Your task to perform on an android device: create a new album in the google photos Image 0: 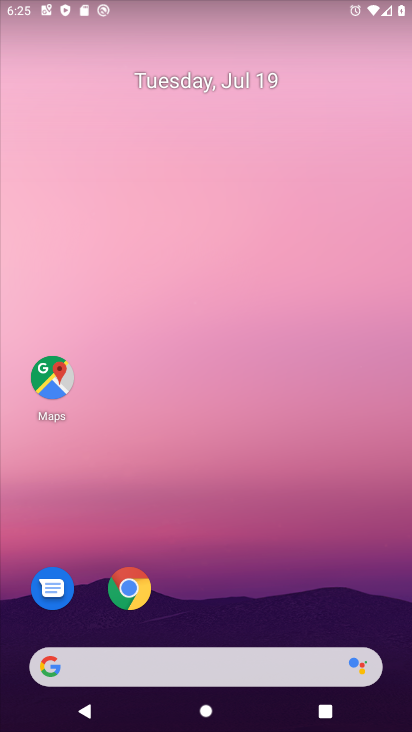
Step 0: drag from (195, 628) to (241, 67)
Your task to perform on an android device: create a new album in the google photos Image 1: 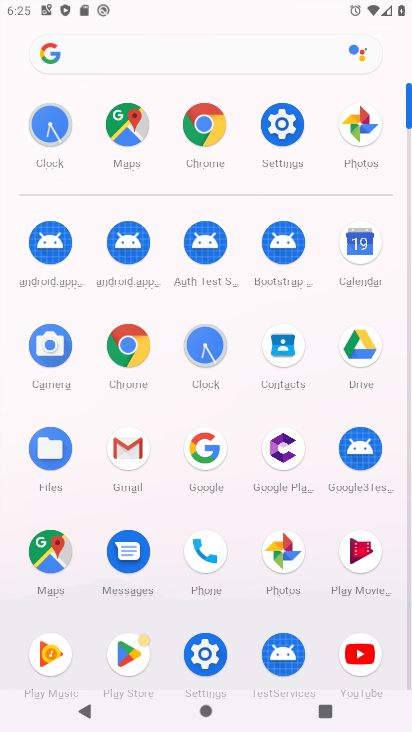
Step 1: click (361, 130)
Your task to perform on an android device: create a new album in the google photos Image 2: 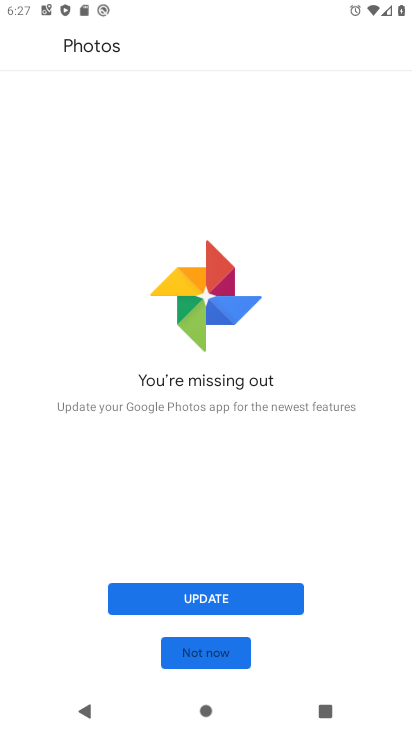
Step 2: click (226, 659)
Your task to perform on an android device: create a new album in the google photos Image 3: 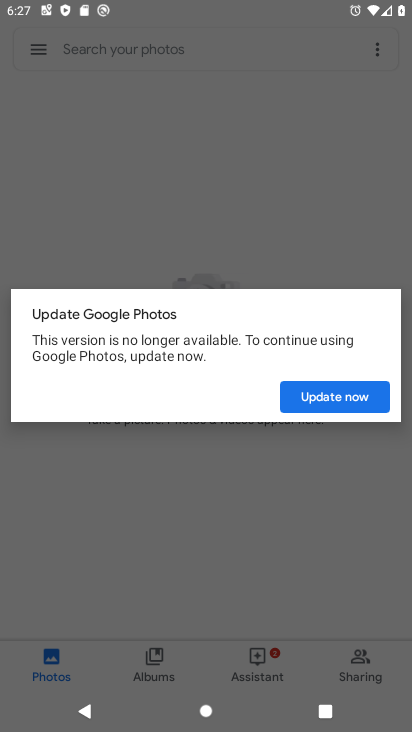
Step 3: click (345, 387)
Your task to perform on an android device: create a new album in the google photos Image 4: 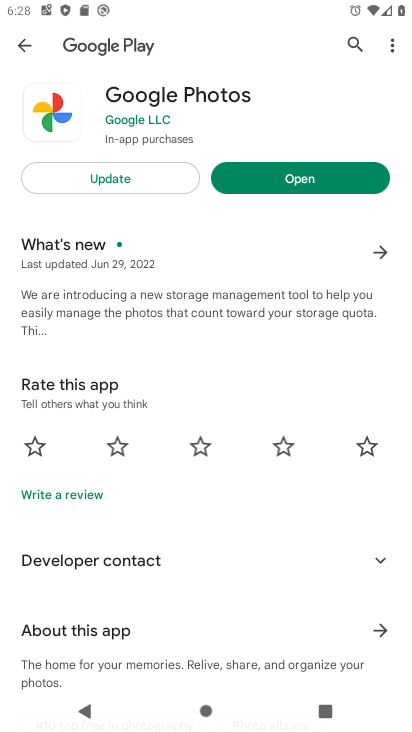
Step 4: click (330, 189)
Your task to perform on an android device: create a new album in the google photos Image 5: 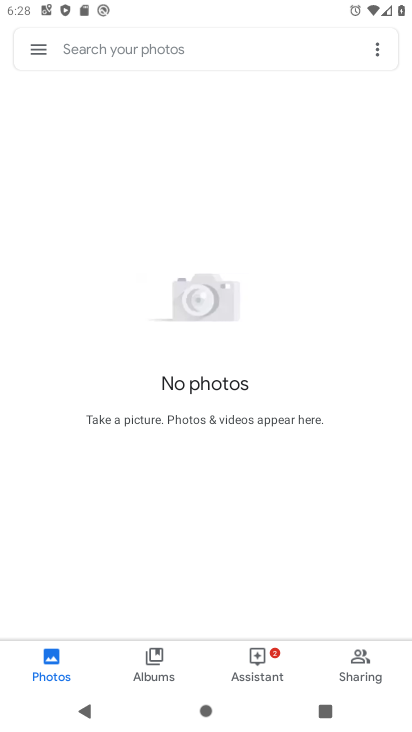
Step 5: task complete